Your task to perform on an android device: check data usage Image 0: 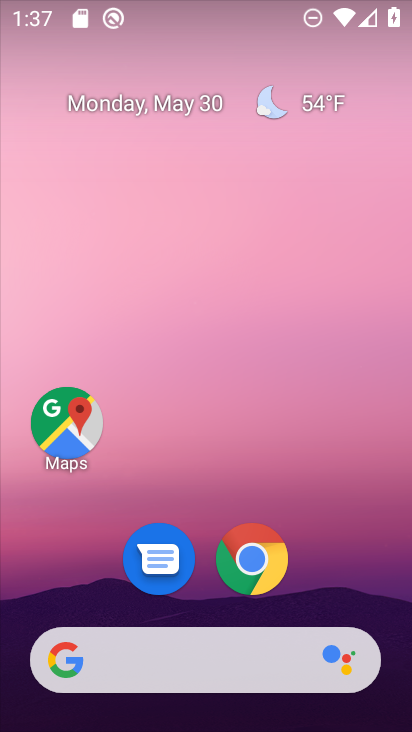
Step 0: drag from (201, 579) to (263, 8)
Your task to perform on an android device: check data usage Image 1: 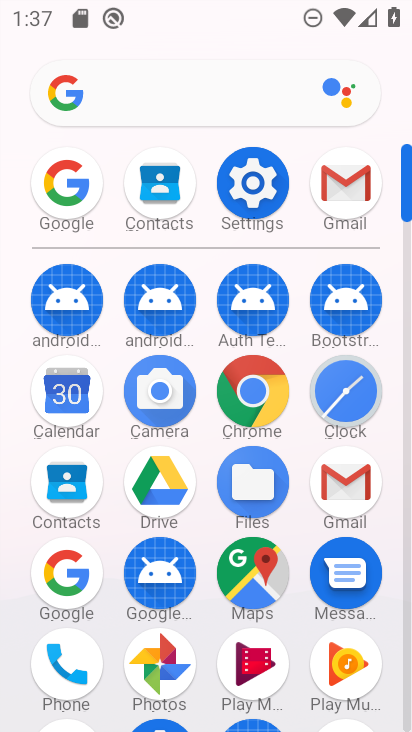
Step 1: click (254, 174)
Your task to perform on an android device: check data usage Image 2: 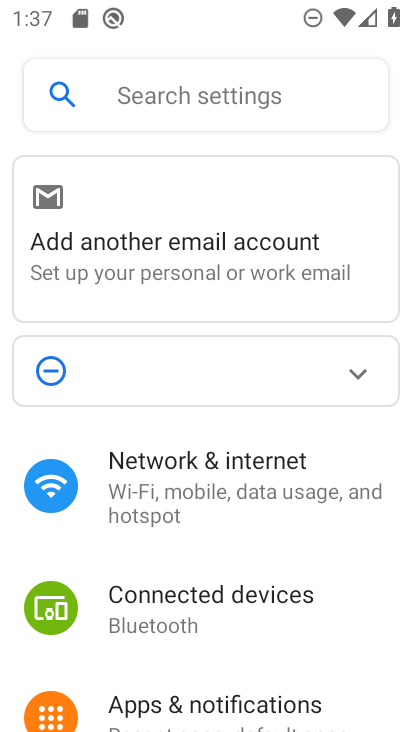
Step 2: click (209, 467)
Your task to perform on an android device: check data usage Image 3: 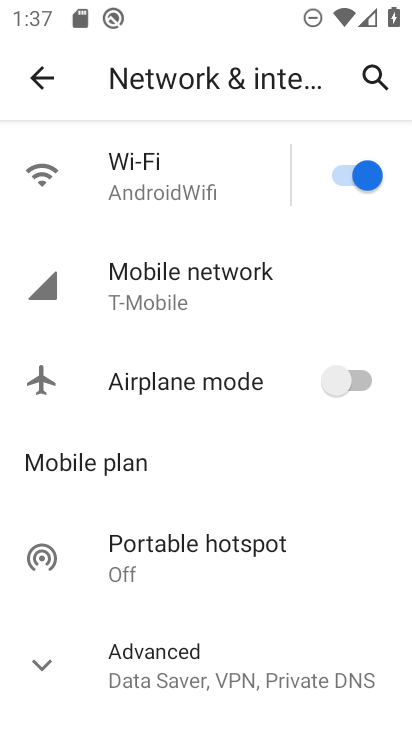
Step 3: click (179, 310)
Your task to perform on an android device: check data usage Image 4: 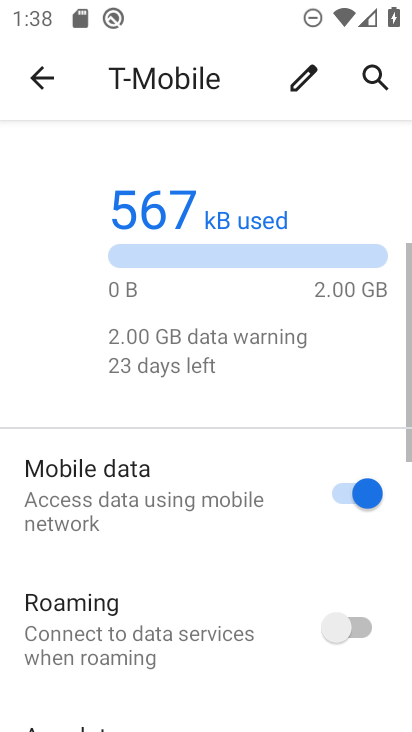
Step 4: drag from (149, 667) to (183, 187)
Your task to perform on an android device: check data usage Image 5: 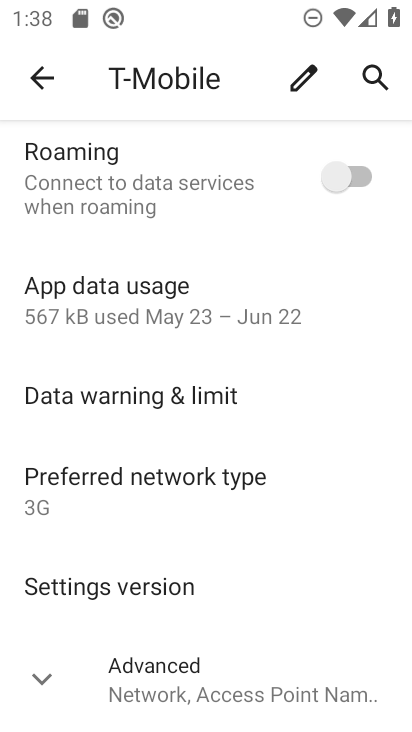
Step 5: click (153, 337)
Your task to perform on an android device: check data usage Image 6: 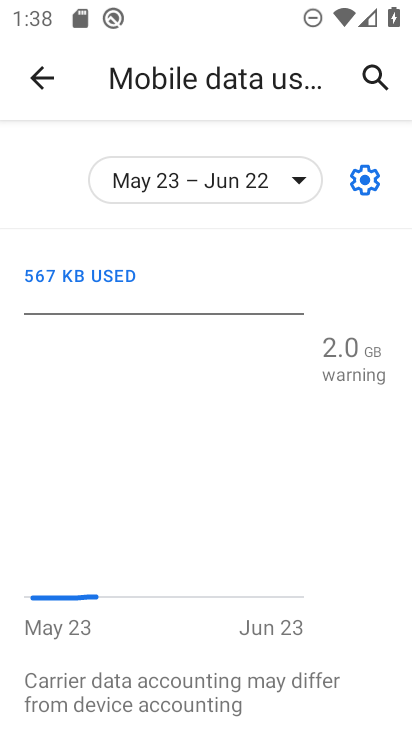
Step 6: task complete